Your task to perform on an android device: Turn on the flashlight Image 0: 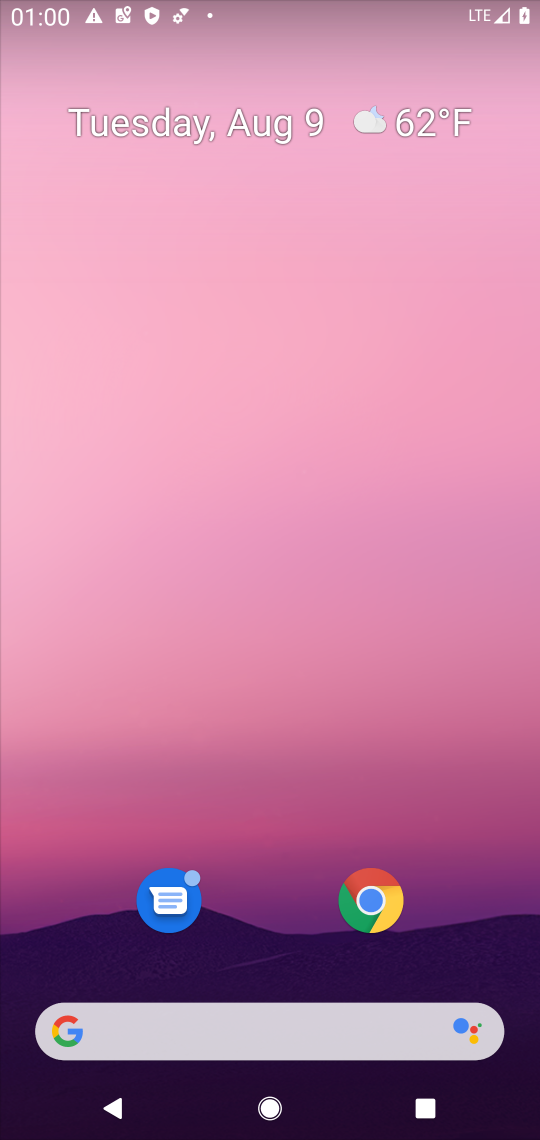
Step 0: press home button
Your task to perform on an android device: Turn on the flashlight Image 1: 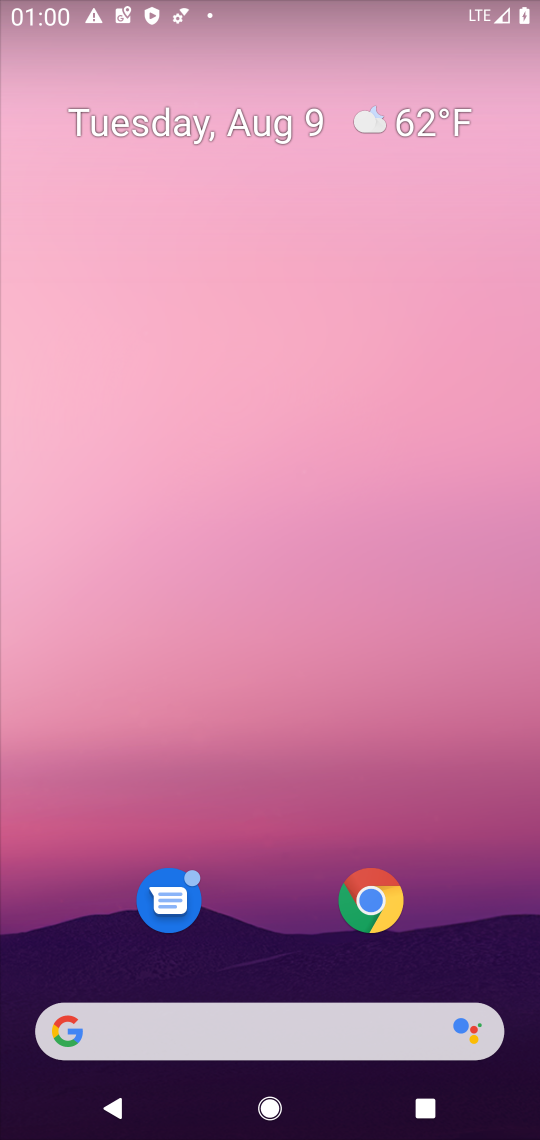
Step 1: drag from (315, 1) to (293, 512)
Your task to perform on an android device: Turn on the flashlight Image 2: 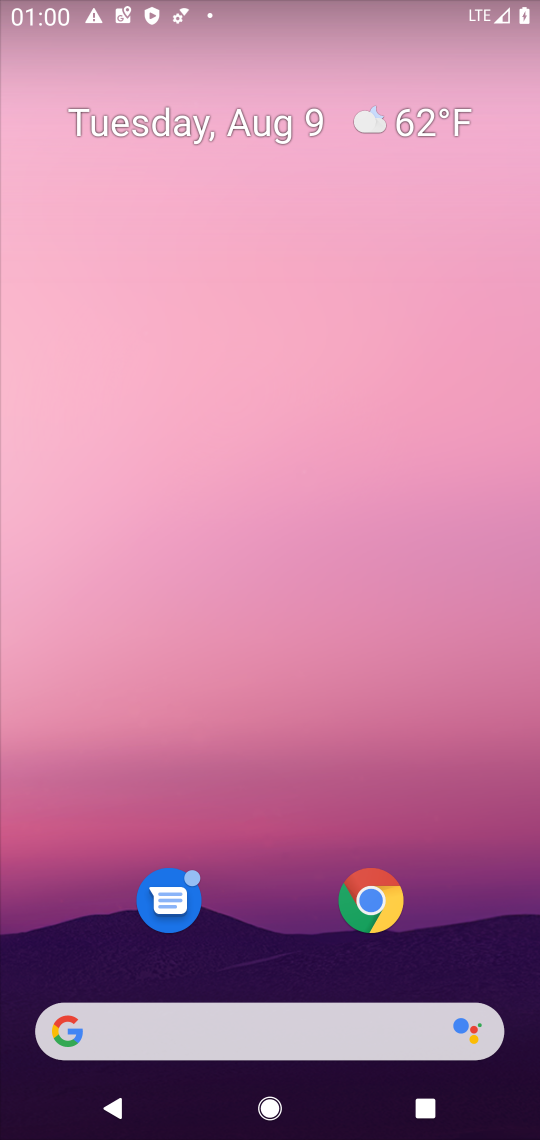
Step 2: drag from (284, 5) to (309, 510)
Your task to perform on an android device: Turn on the flashlight Image 3: 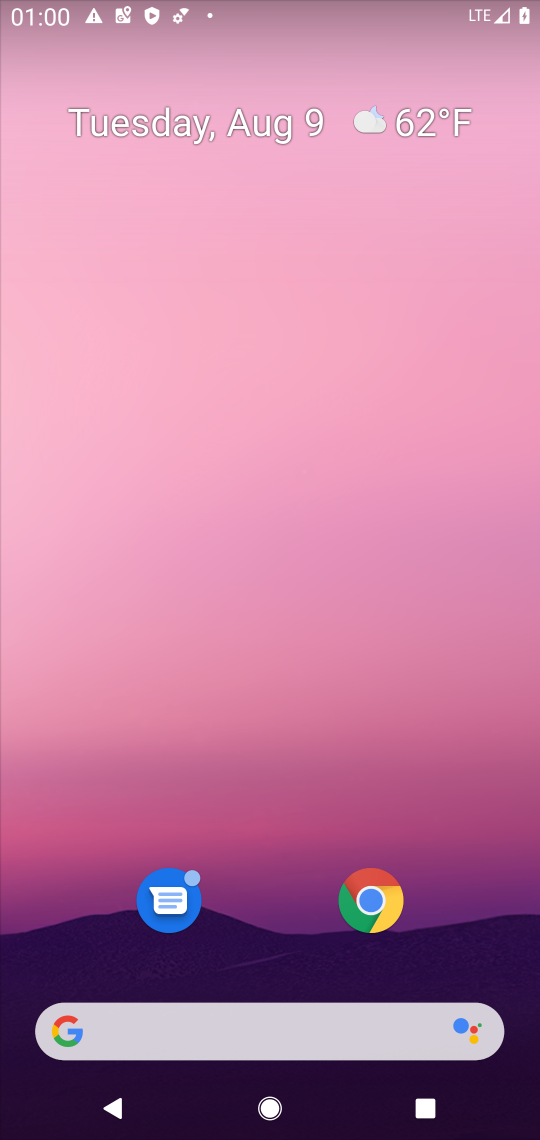
Step 3: drag from (274, 0) to (289, 881)
Your task to perform on an android device: Turn on the flashlight Image 4: 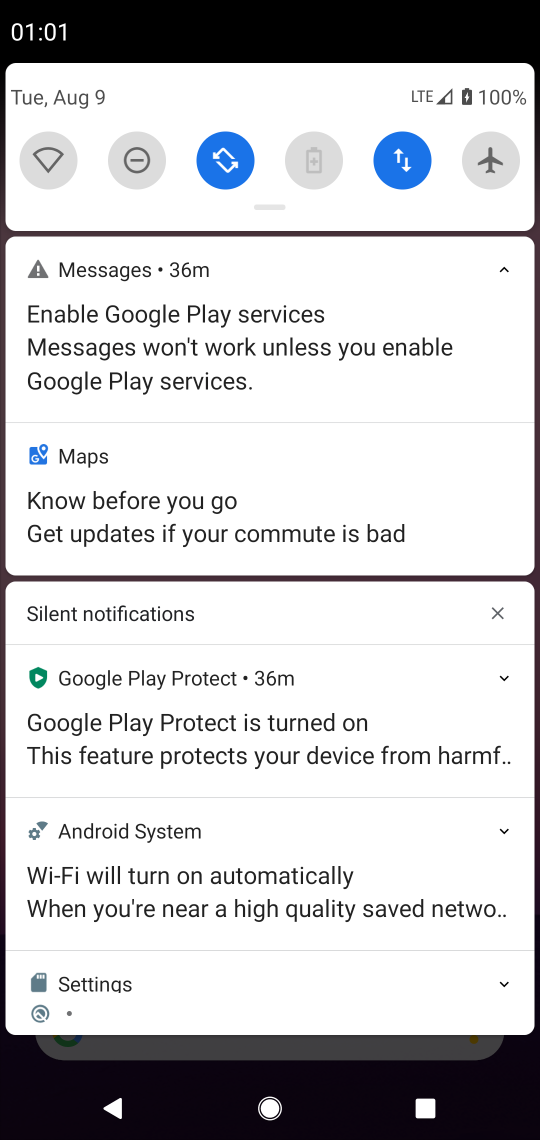
Step 4: drag from (255, 70) to (321, 541)
Your task to perform on an android device: Turn on the flashlight Image 5: 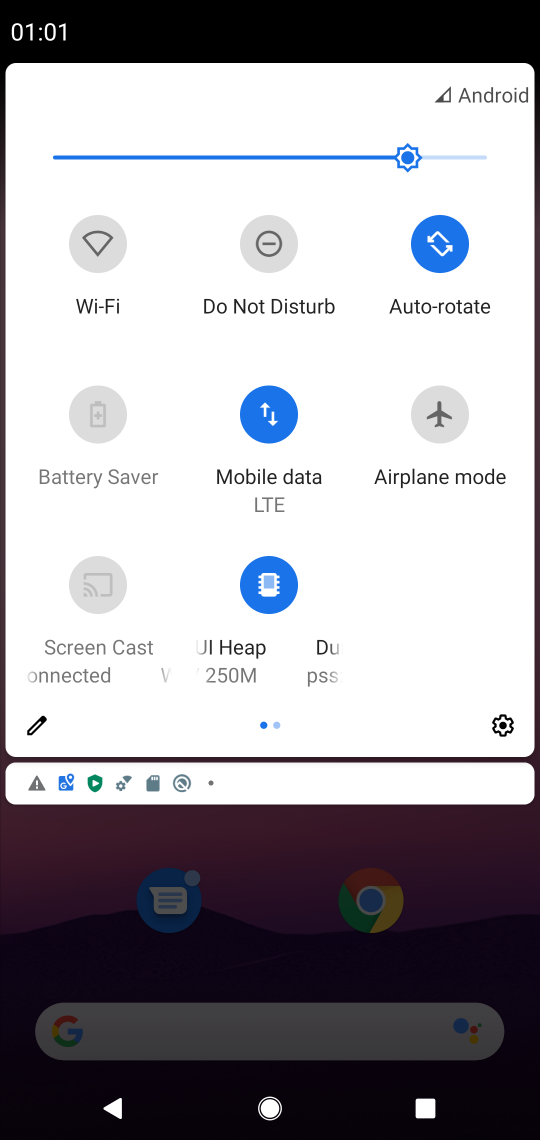
Step 5: click (28, 721)
Your task to perform on an android device: Turn on the flashlight Image 6: 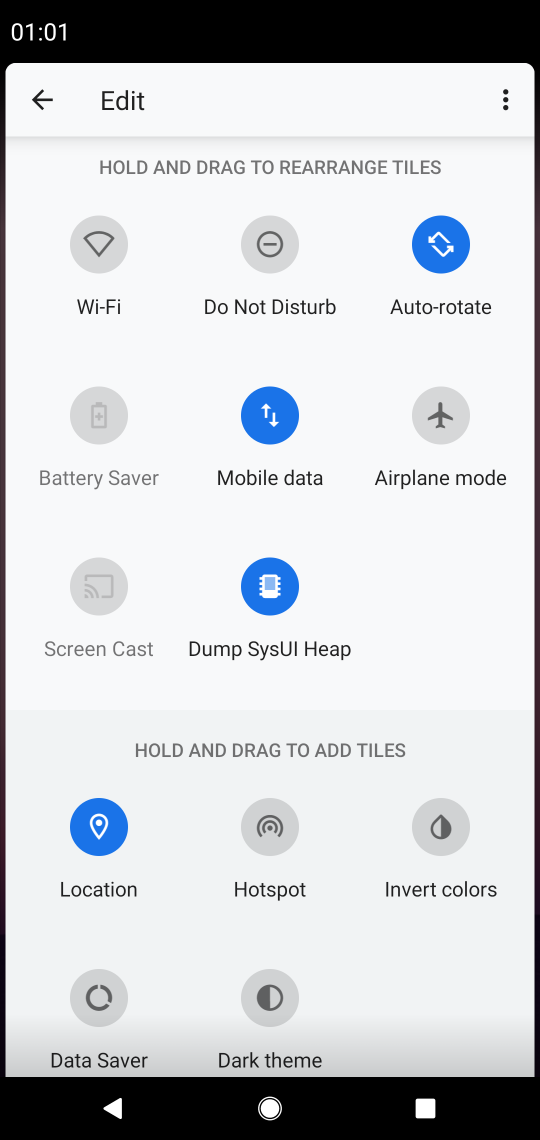
Step 6: task complete